Your task to perform on an android device: Open accessibility settings Image 0: 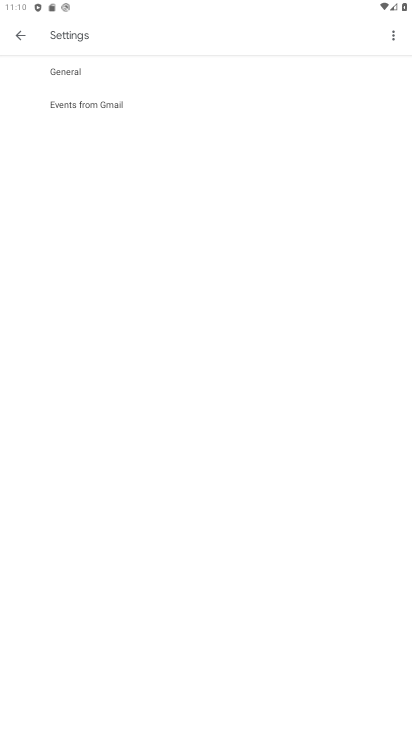
Step 0: press home button
Your task to perform on an android device: Open accessibility settings Image 1: 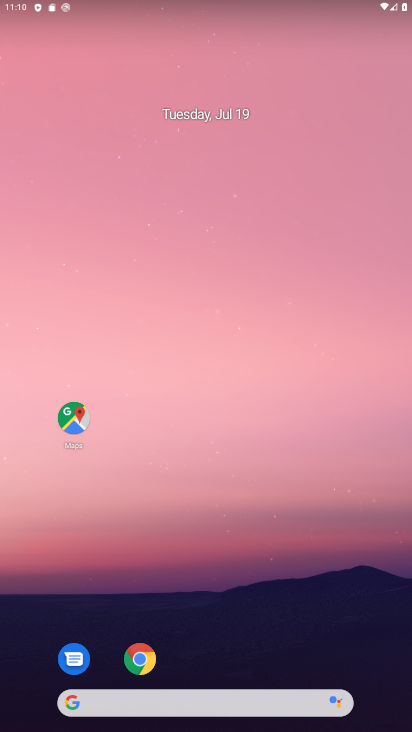
Step 1: drag from (320, 558) to (263, 73)
Your task to perform on an android device: Open accessibility settings Image 2: 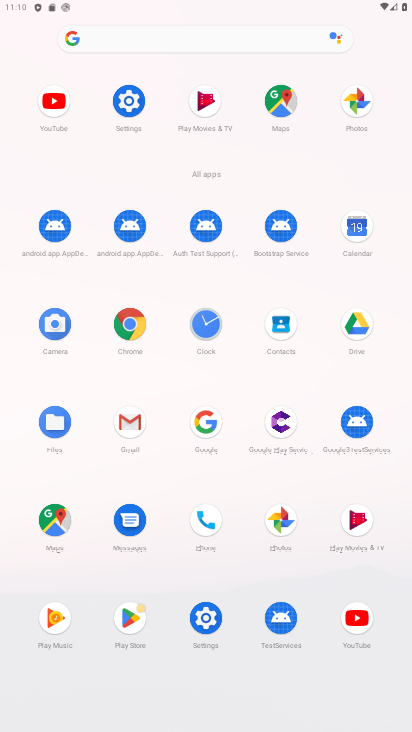
Step 2: click (200, 619)
Your task to perform on an android device: Open accessibility settings Image 3: 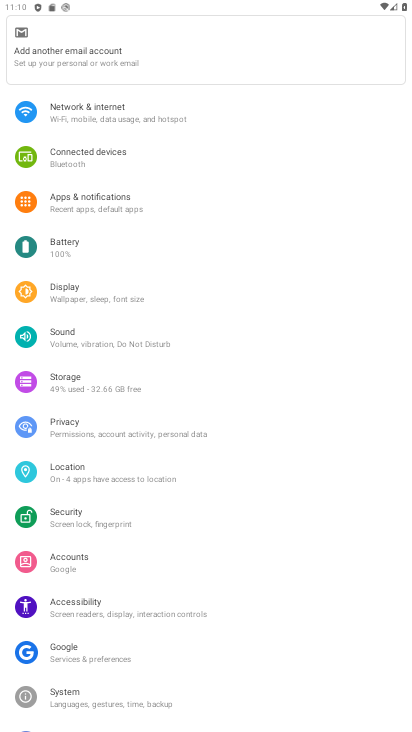
Step 3: click (54, 600)
Your task to perform on an android device: Open accessibility settings Image 4: 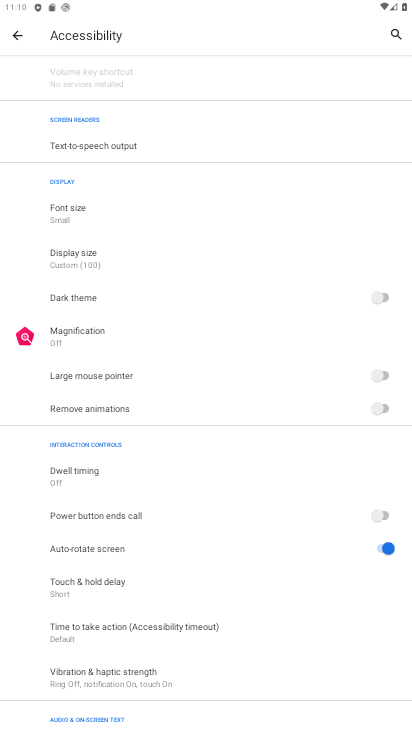
Step 4: task complete